Your task to perform on an android device: Play the last video I watched on Youtube Image 0: 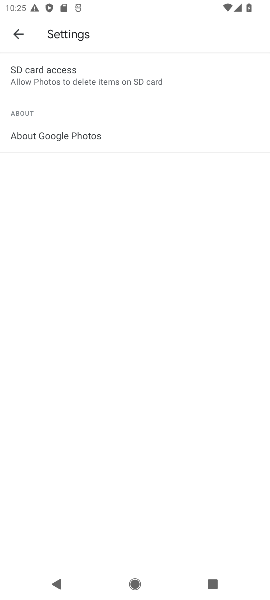
Step 0: press home button
Your task to perform on an android device: Play the last video I watched on Youtube Image 1: 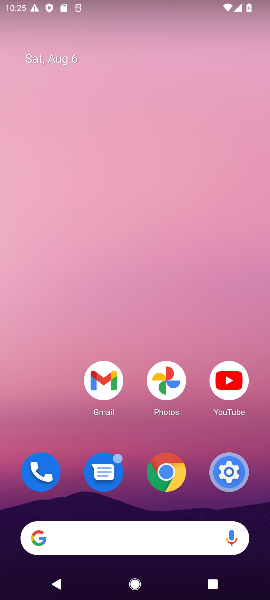
Step 1: drag from (244, 531) to (115, 48)
Your task to perform on an android device: Play the last video I watched on Youtube Image 2: 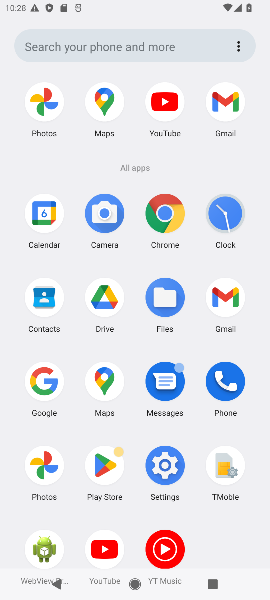
Step 2: click (104, 548)
Your task to perform on an android device: Play the last video I watched on Youtube Image 3: 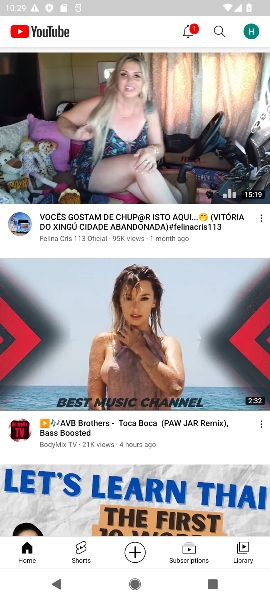
Step 3: task complete